Your task to perform on an android device: install app "Duolingo: language lessons" Image 0: 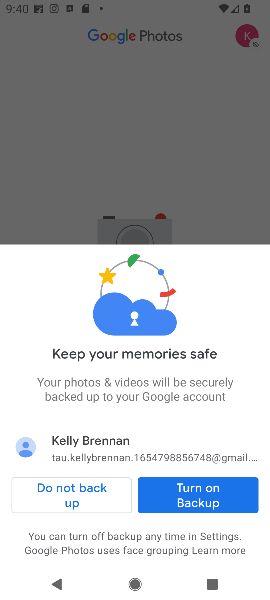
Step 0: press home button
Your task to perform on an android device: install app "Duolingo: language lessons" Image 1: 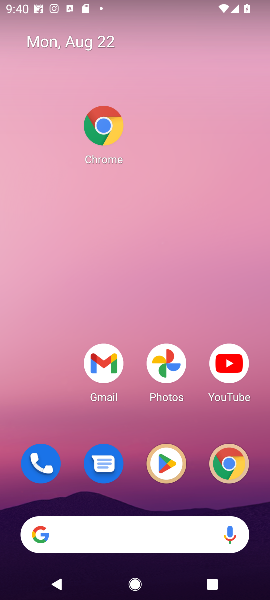
Step 1: click (161, 463)
Your task to perform on an android device: install app "Duolingo: language lessons" Image 2: 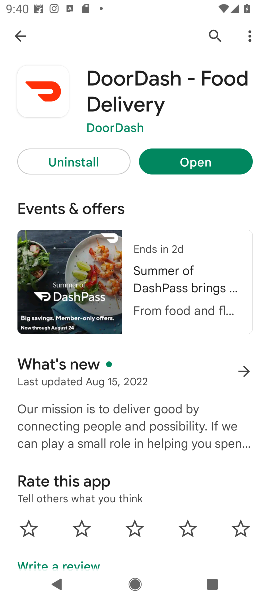
Step 2: click (20, 41)
Your task to perform on an android device: install app "Duolingo: language lessons" Image 3: 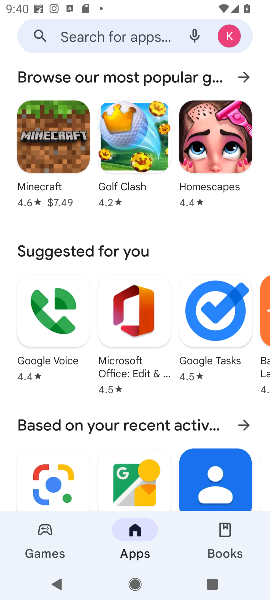
Step 3: click (80, 34)
Your task to perform on an android device: install app "Duolingo: language lessons" Image 4: 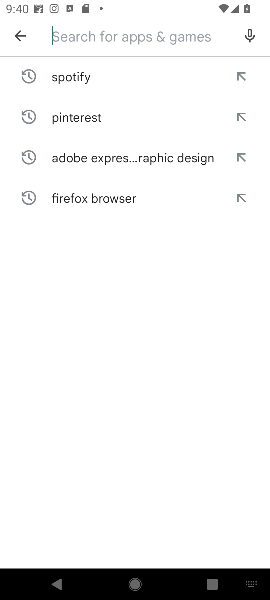
Step 4: type "Duolingo: language lessons""
Your task to perform on an android device: install app "Duolingo: language lessons" Image 5: 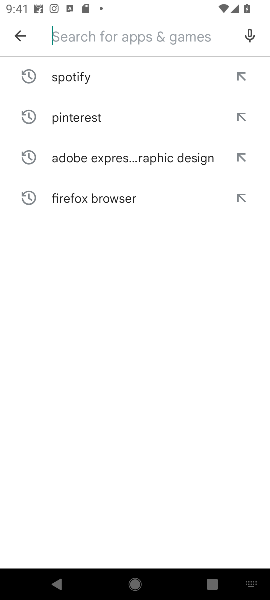
Step 5: type "Duolingo: language lessons""
Your task to perform on an android device: install app "Duolingo: language lessons" Image 6: 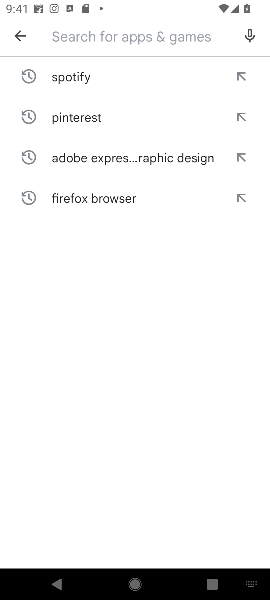
Step 6: task complete